Your task to perform on an android device: Open Google Chrome and open the bookmarks view Image 0: 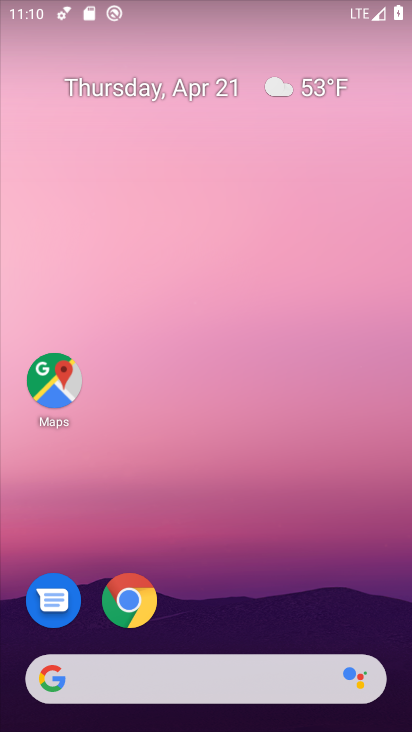
Step 0: click (143, 605)
Your task to perform on an android device: Open Google Chrome and open the bookmarks view Image 1: 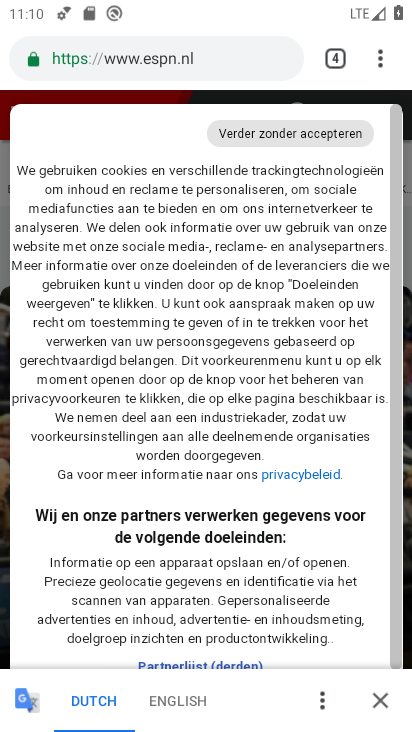
Step 1: click (379, 53)
Your task to perform on an android device: Open Google Chrome and open the bookmarks view Image 2: 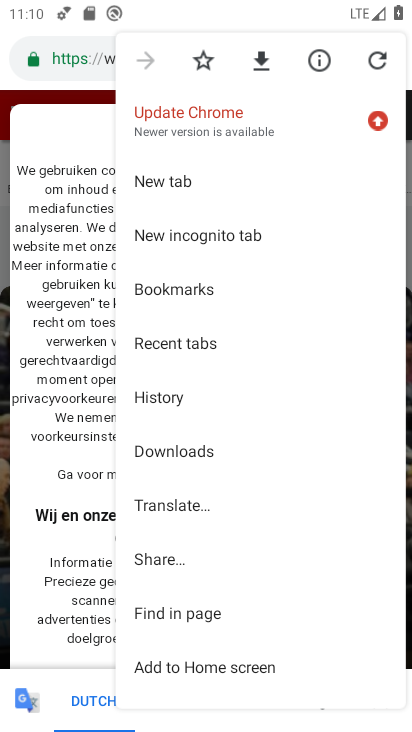
Step 2: click (208, 285)
Your task to perform on an android device: Open Google Chrome and open the bookmarks view Image 3: 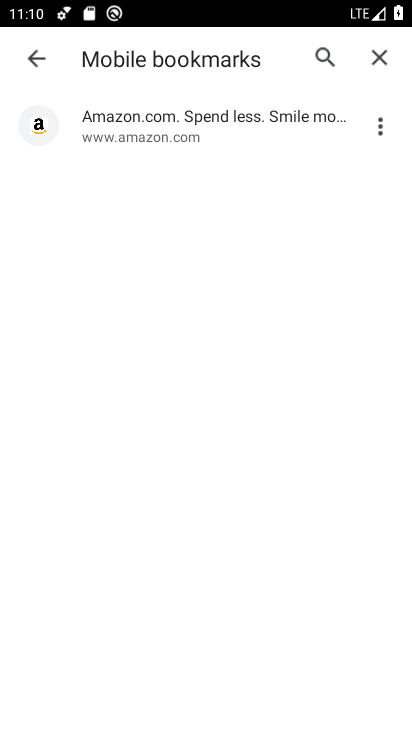
Step 3: click (169, 114)
Your task to perform on an android device: Open Google Chrome and open the bookmarks view Image 4: 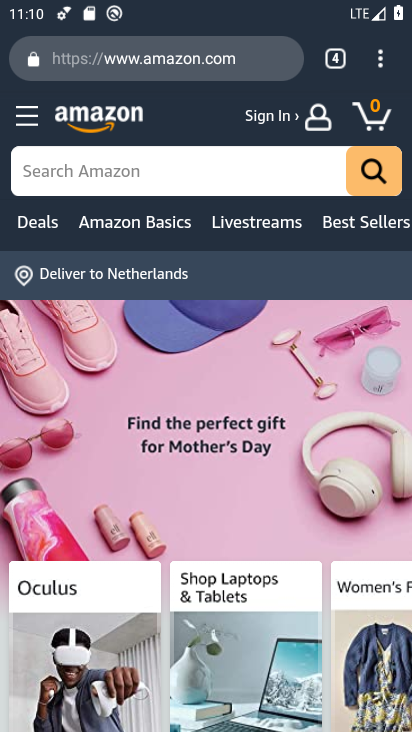
Step 4: task complete